Your task to perform on an android device: change the clock display to analog Image 0: 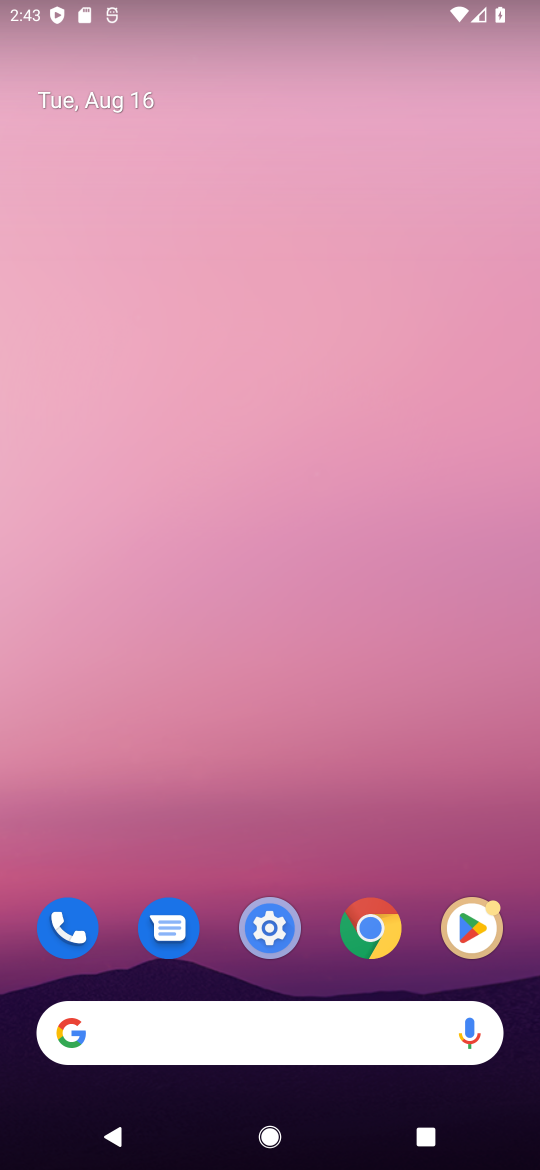
Step 0: drag from (305, 1033) to (316, 143)
Your task to perform on an android device: change the clock display to analog Image 1: 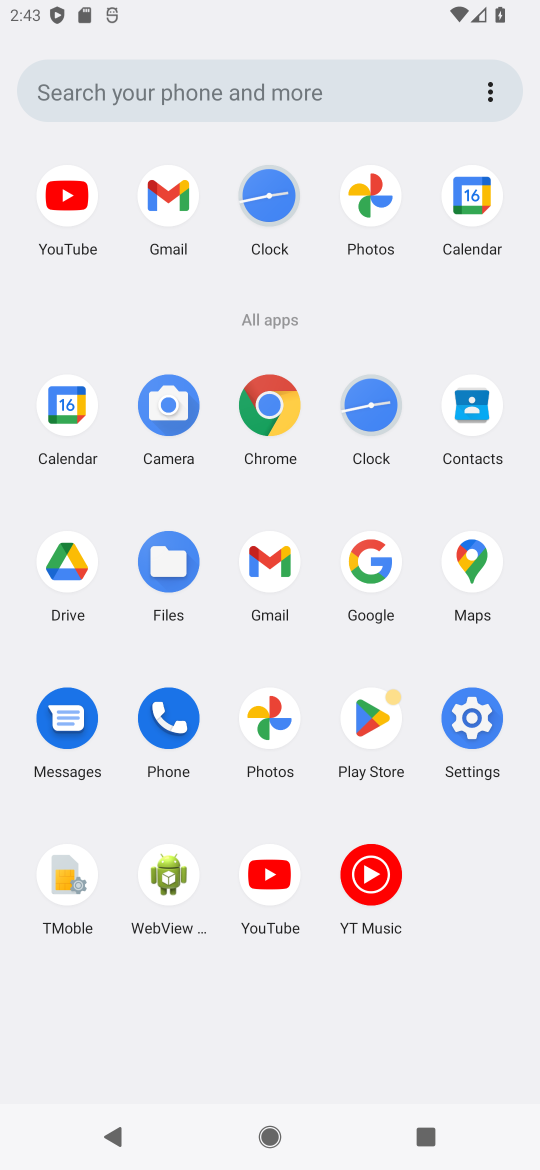
Step 1: click (352, 413)
Your task to perform on an android device: change the clock display to analog Image 2: 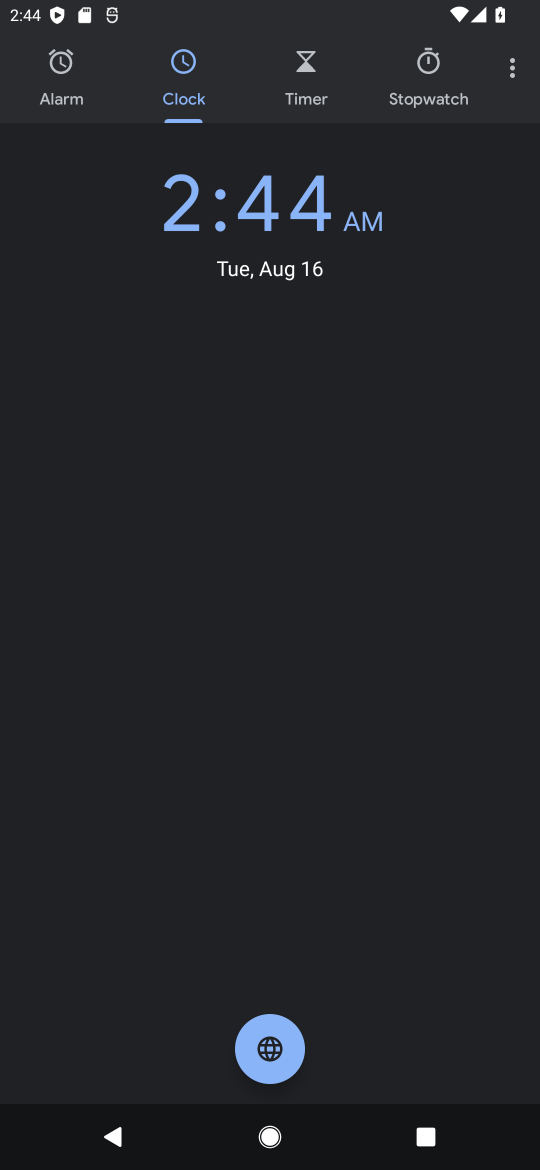
Step 2: click (501, 54)
Your task to perform on an android device: change the clock display to analog Image 3: 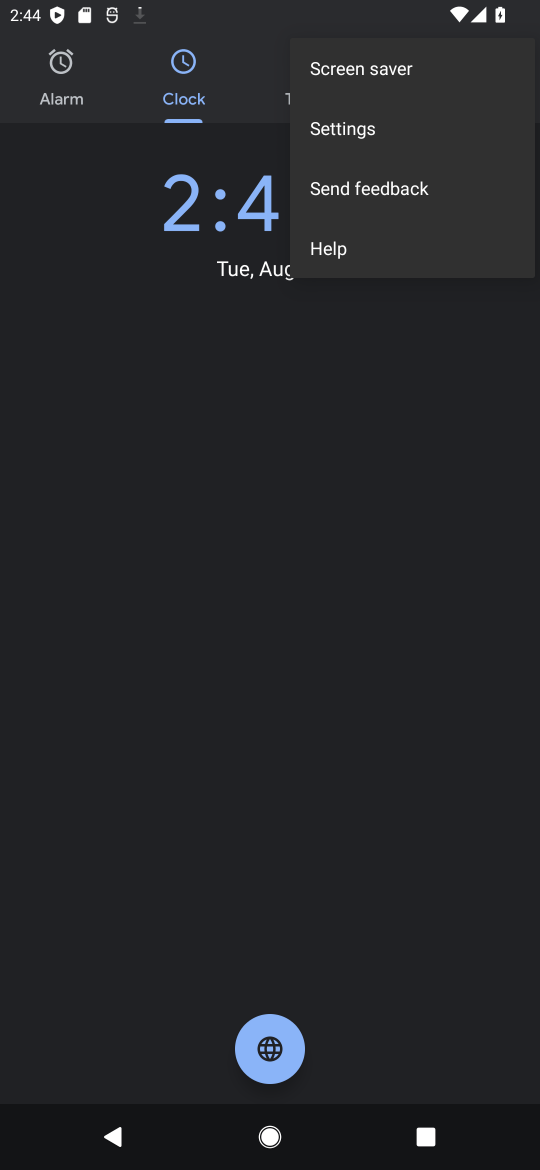
Step 3: click (360, 127)
Your task to perform on an android device: change the clock display to analog Image 4: 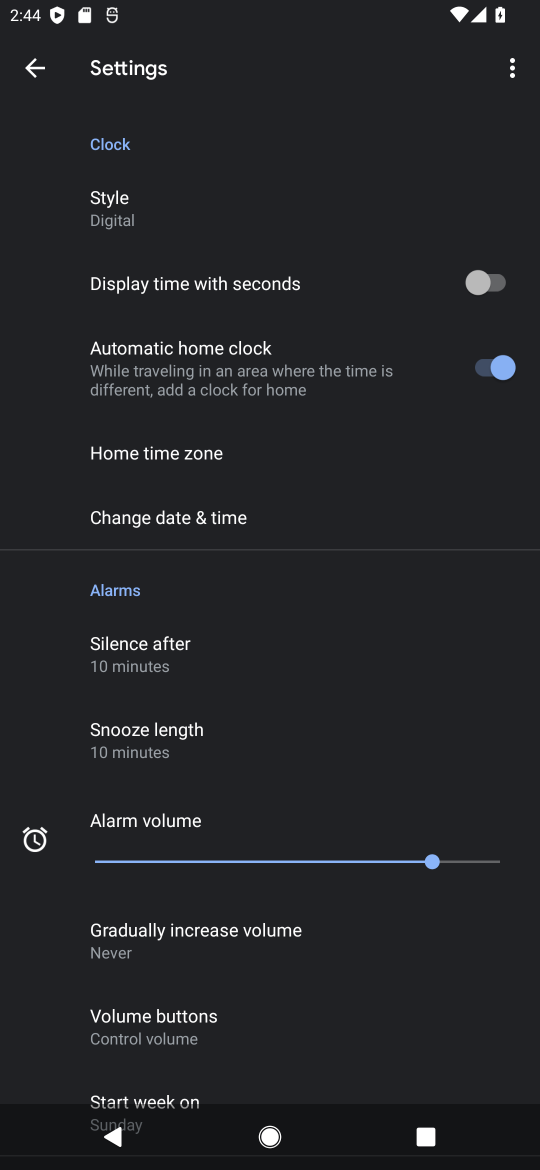
Step 4: click (229, 182)
Your task to perform on an android device: change the clock display to analog Image 5: 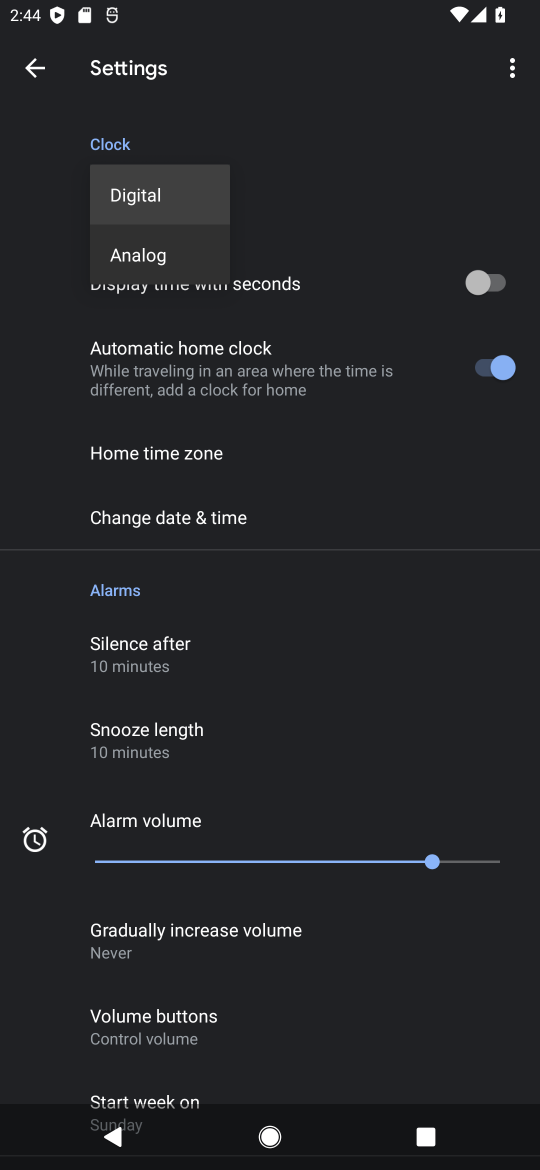
Step 5: click (176, 265)
Your task to perform on an android device: change the clock display to analog Image 6: 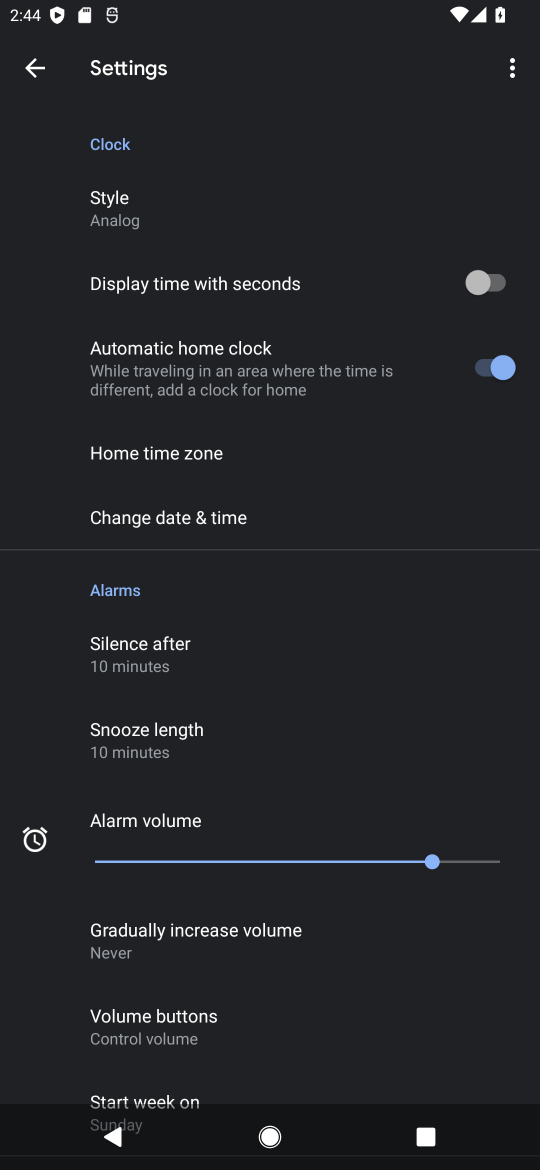
Step 6: task complete